Your task to perform on an android device: set the timer Image 0: 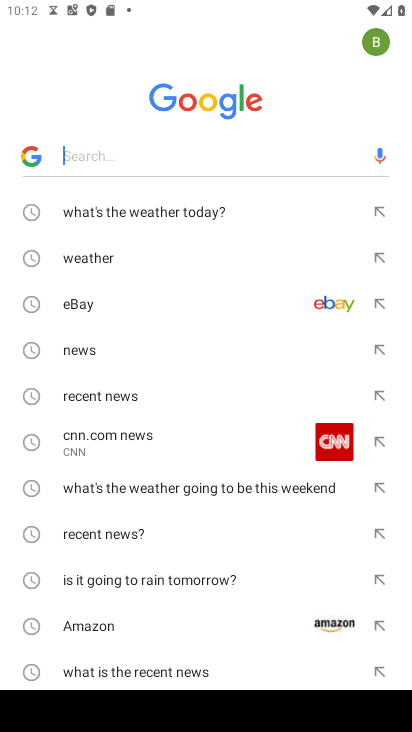
Step 0: press home button
Your task to perform on an android device: set the timer Image 1: 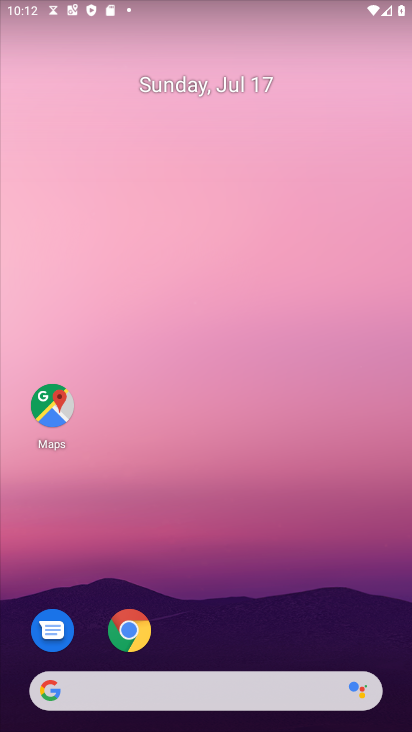
Step 1: drag from (282, 682) to (313, 9)
Your task to perform on an android device: set the timer Image 2: 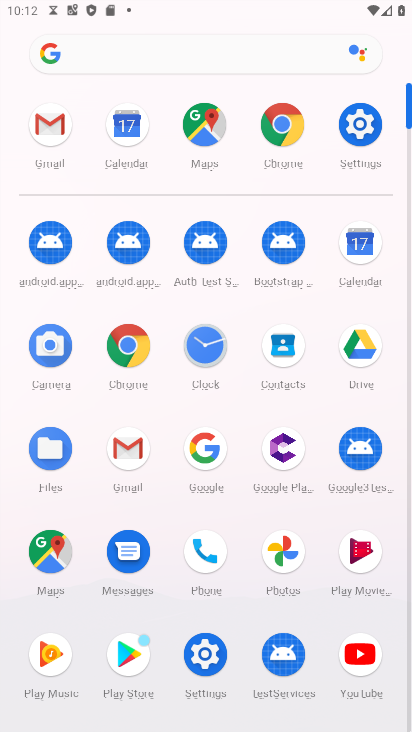
Step 2: click (208, 346)
Your task to perform on an android device: set the timer Image 3: 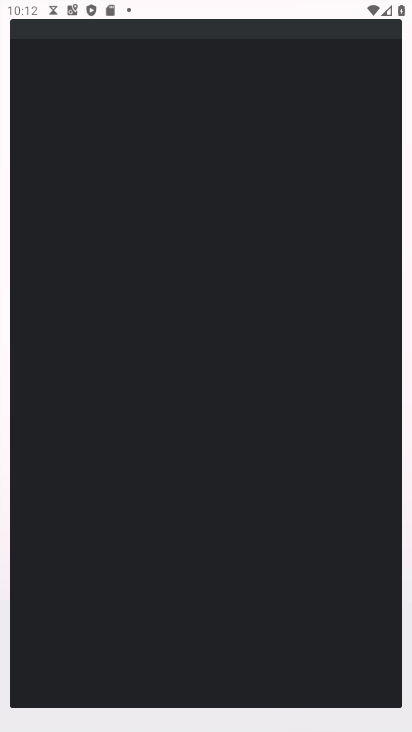
Step 3: task complete